Your task to perform on an android device: Open the phone app and click the voicemail tab. Image 0: 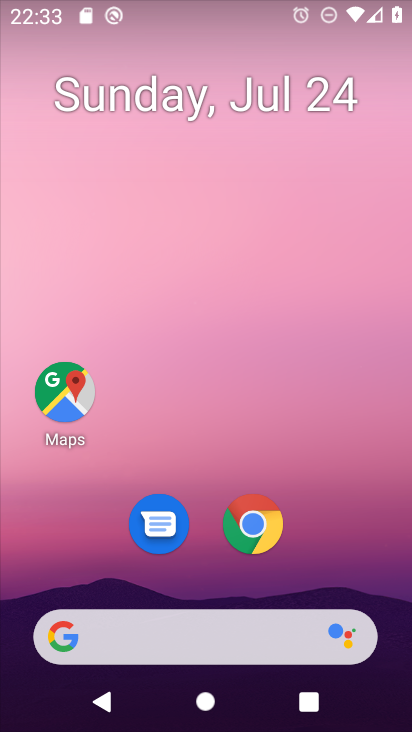
Step 0: press home button
Your task to perform on an android device: Open the phone app and click the voicemail tab. Image 1: 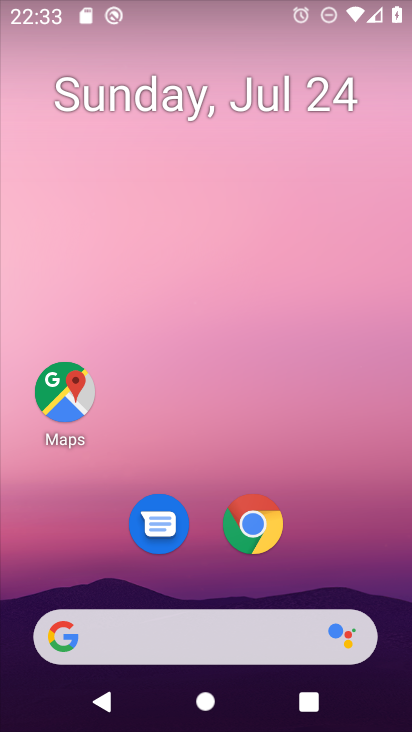
Step 1: drag from (179, 545) to (262, 80)
Your task to perform on an android device: Open the phone app and click the voicemail tab. Image 2: 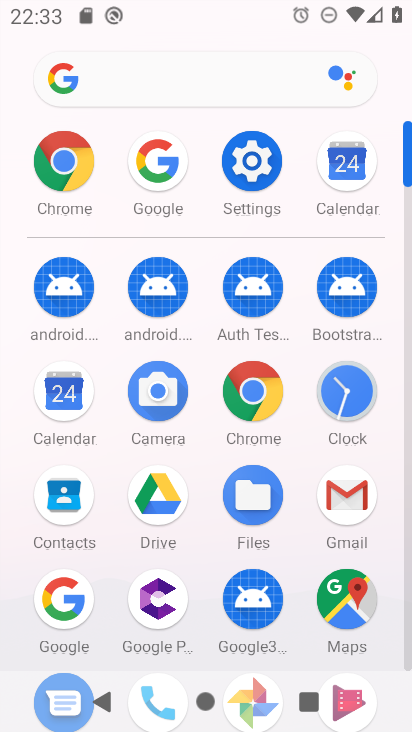
Step 2: drag from (208, 578) to (293, 223)
Your task to perform on an android device: Open the phone app and click the voicemail tab. Image 3: 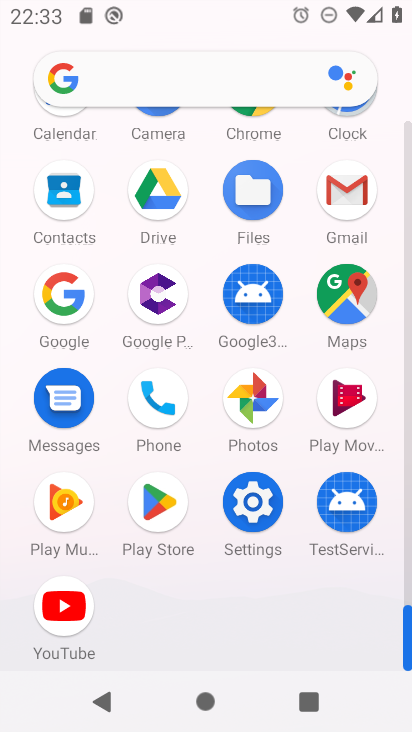
Step 3: click (156, 406)
Your task to perform on an android device: Open the phone app and click the voicemail tab. Image 4: 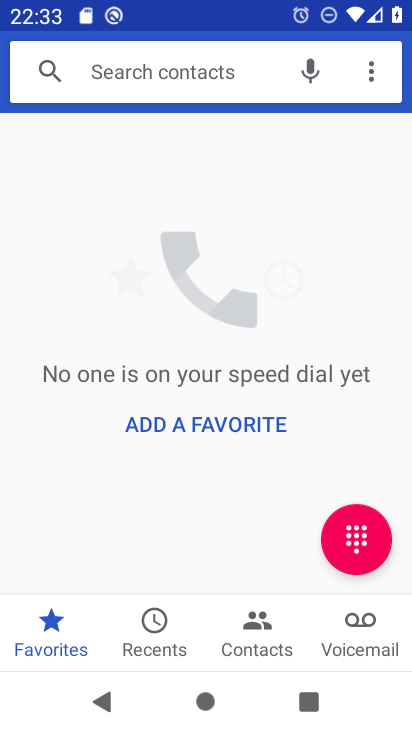
Step 4: click (355, 644)
Your task to perform on an android device: Open the phone app and click the voicemail tab. Image 5: 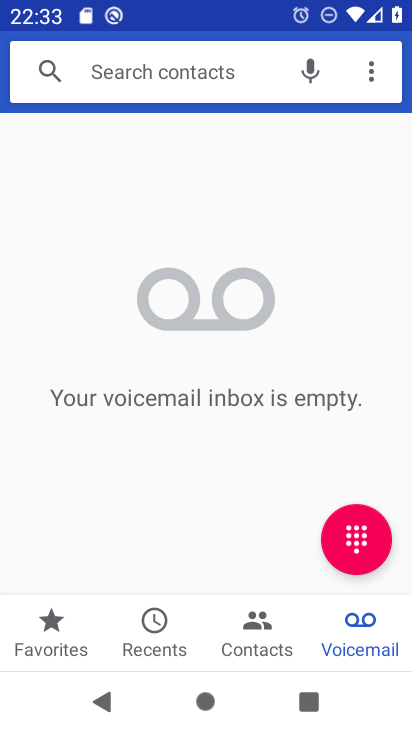
Step 5: task complete